Your task to perform on an android device: move a message to another label in the gmail app Image 0: 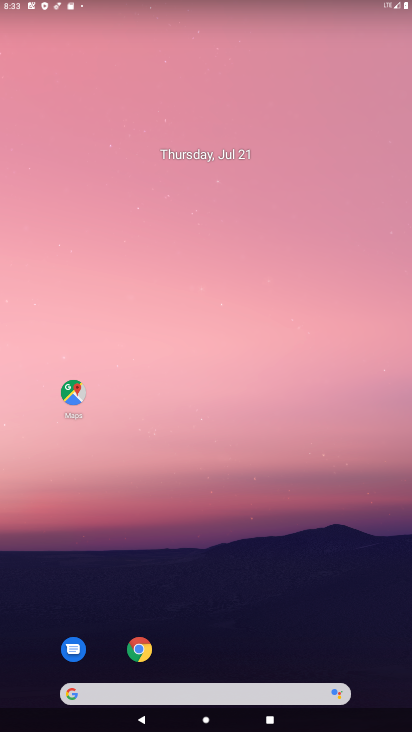
Step 0: drag from (194, 644) to (199, 112)
Your task to perform on an android device: move a message to another label in the gmail app Image 1: 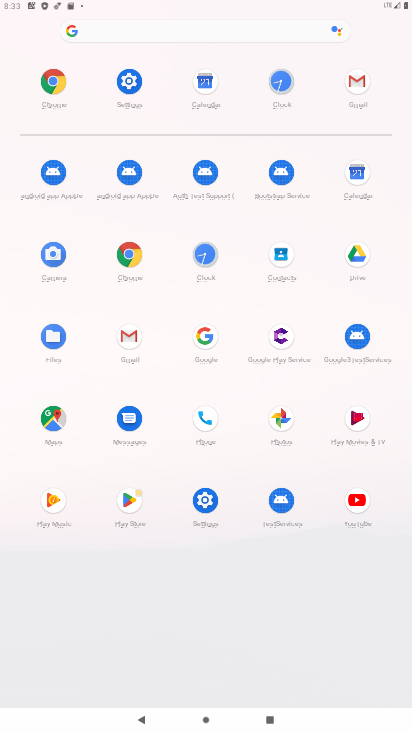
Step 1: click (126, 347)
Your task to perform on an android device: move a message to another label in the gmail app Image 2: 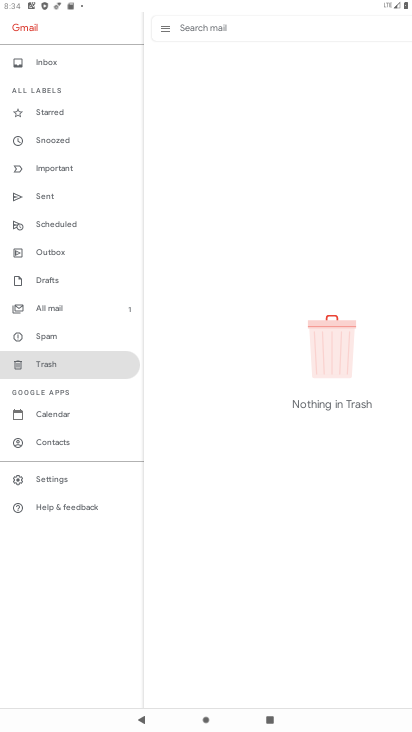
Step 2: click (48, 59)
Your task to perform on an android device: move a message to another label in the gmail app Image 3: 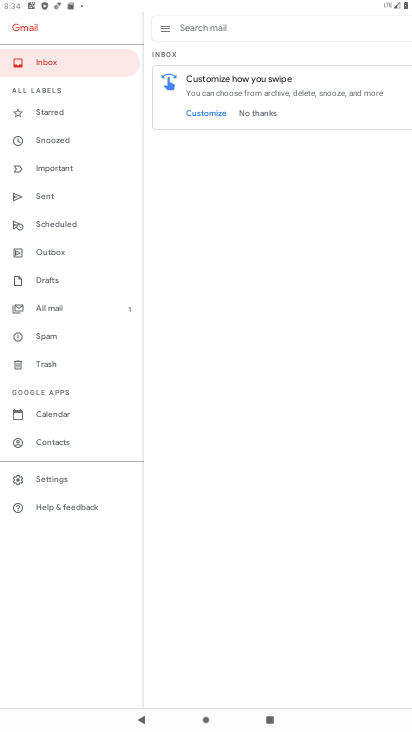
Step 3: task complete